Your task to perform on an android device: Open Youtube and go to "Your channel" Image 0: 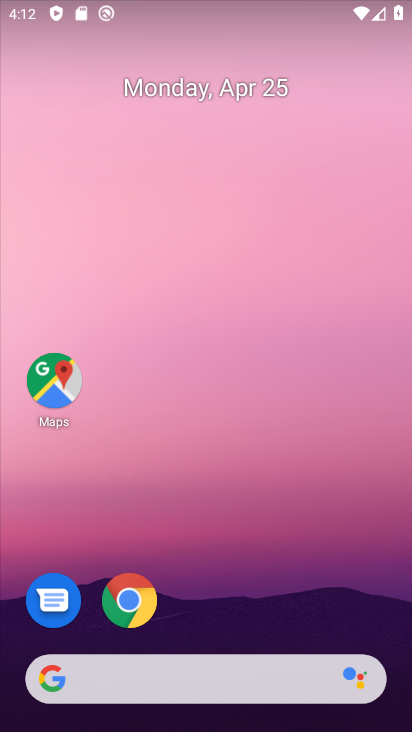
Step 0: drag from (193, 607) to (273, 126)
Your task to perform on an android device: Open Youtube and go to "Your channel" Image 1: 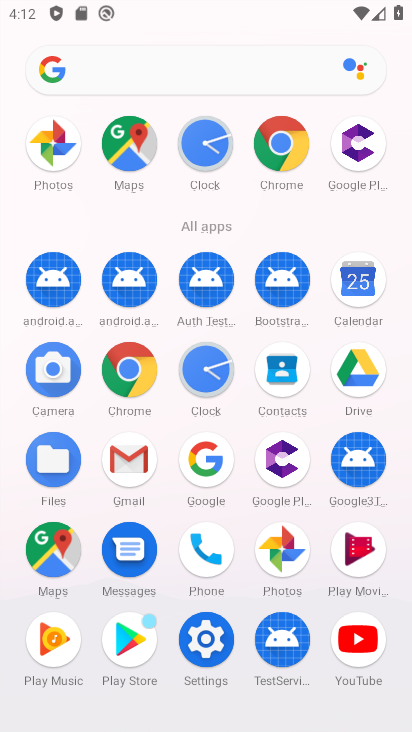
Step 1: click (365, 648)
Your task to perform on an android device: Open Youtube and go to "Your channel" Image 2: 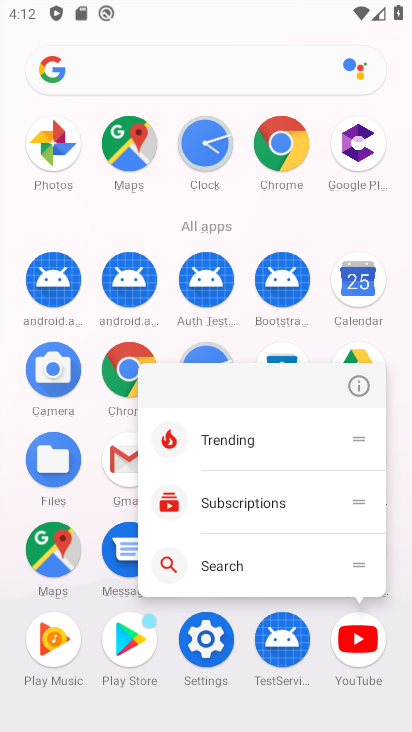
Step 2: click (364, 646)
Your task to perform on an android device: Open Youtube and go to "Your channel" Image 3: 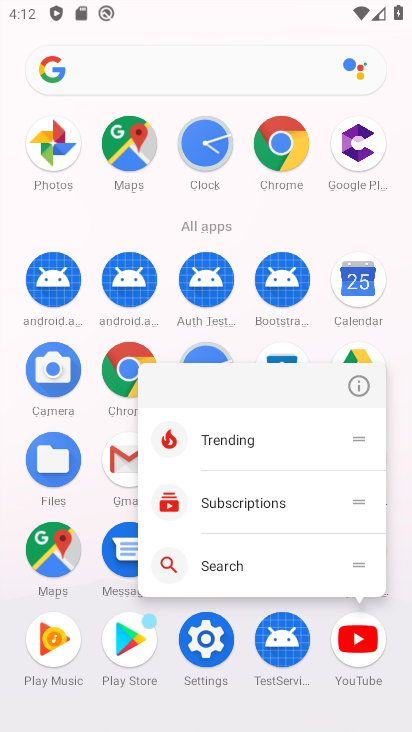
Step 3: click (359, 642)
Your task to perform on an android device: Open Youtube and go to "Your channel" Image 4: 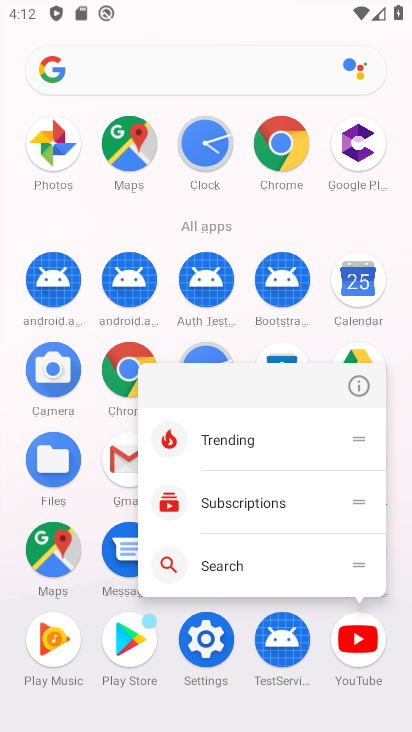
Step 4: click (359, 642)
Your task to perform on an android device: Open Youtube and go to "Your channel" Image 5: 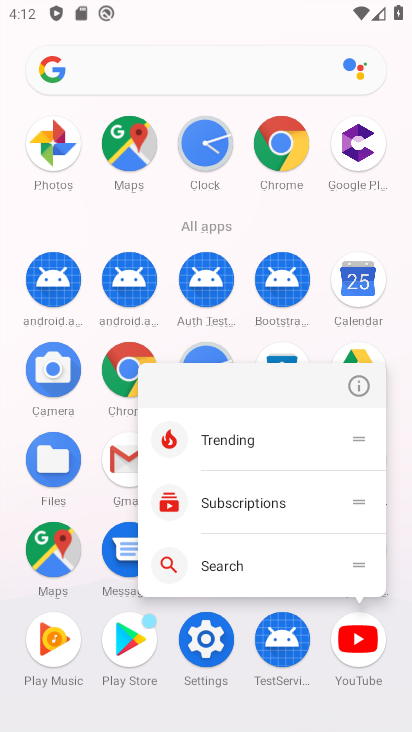
Step 5: click (363, 630)
Your task to perform on an android device: Open Youtube and go to "Your channel" Image 6: 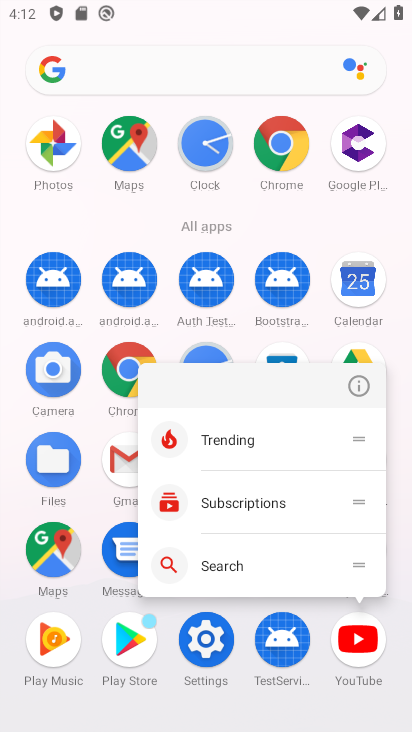
Step 6: click (360, 649)
Your task to perform on an android device: Open Youtube and go to "Your channel" Image 7: 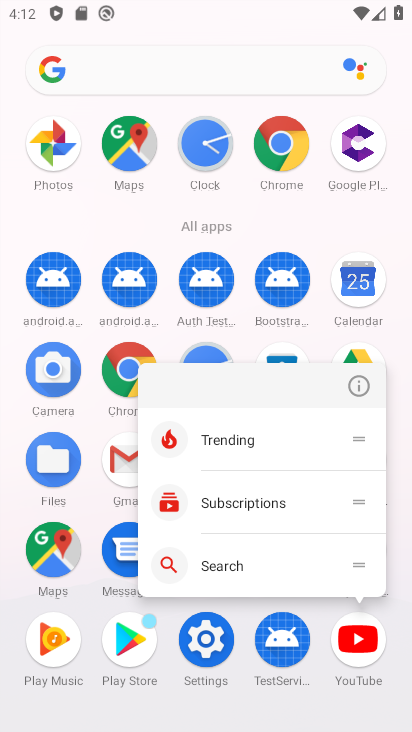
Step 7: click (360, 642)
Your task to perform on an android device: Open Youtube and go to "Your channel" Image 8: 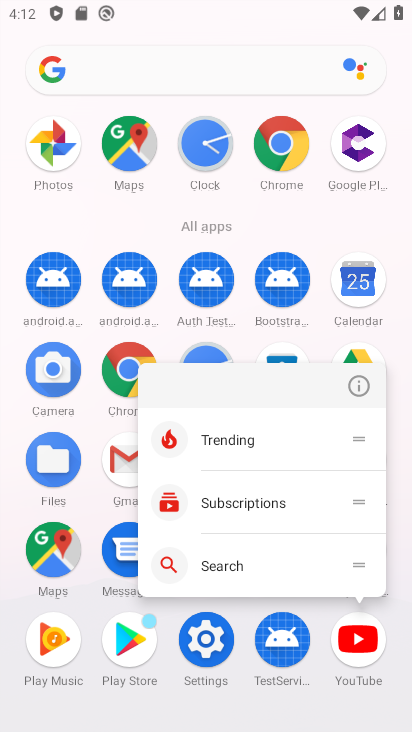
Step 8: click (361, 635)
Your task to perform on an android device: Open Youtube and go to "Your channel" Image 9: 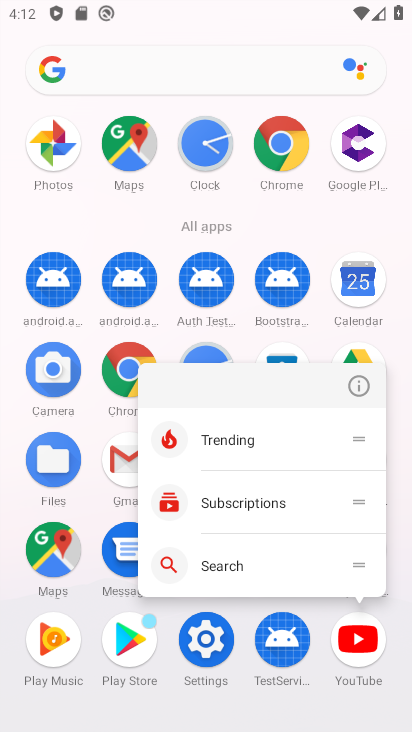
Step 9: click (365, 644)
Your task to perform on an android device: Open Youtube and go to "Your channel" Image 10: 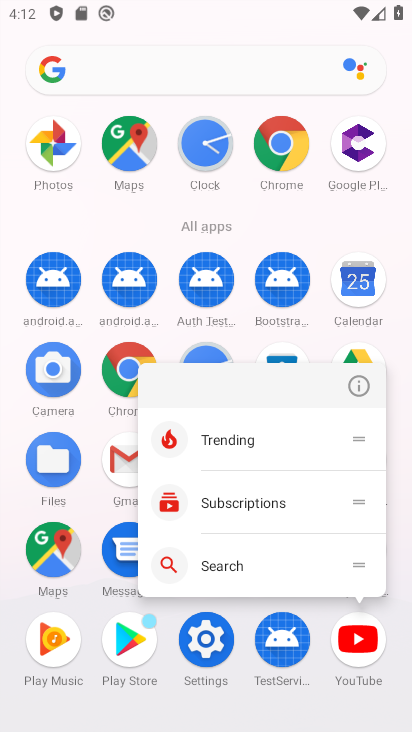
Step 10: click (365, 640)
Your task to perform on an android device: Open Youtube and go to "Your channel" Image 11: 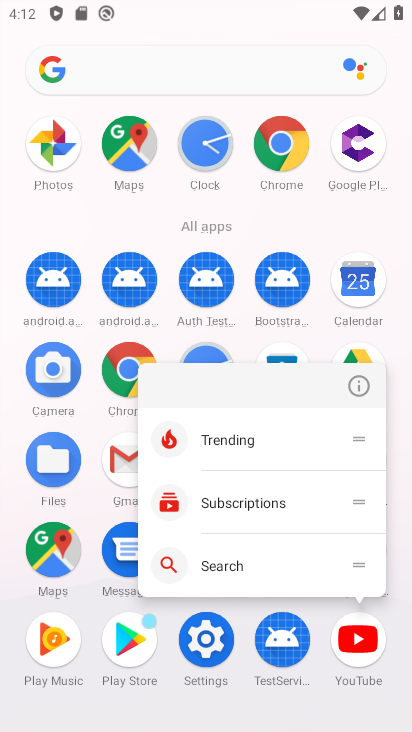
Step 11: click (365, 640)
Your task to perform on an android device: Open Youtube and go to "Your channel" Image 12: 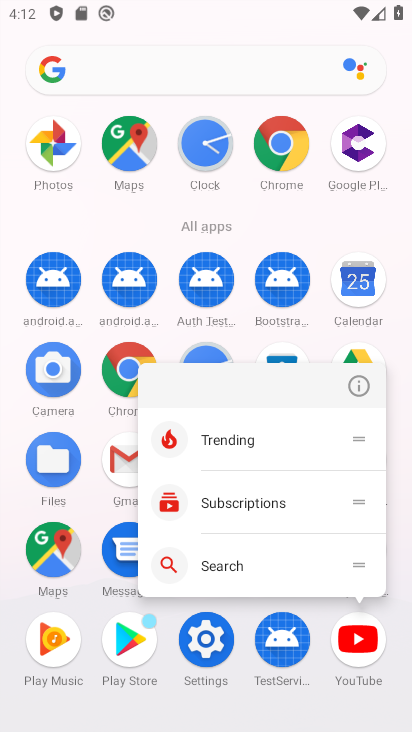
Step 12: click (365, 641)
Your task to perform on an android device: Open Youtube and go to "Your channel" Image 13: 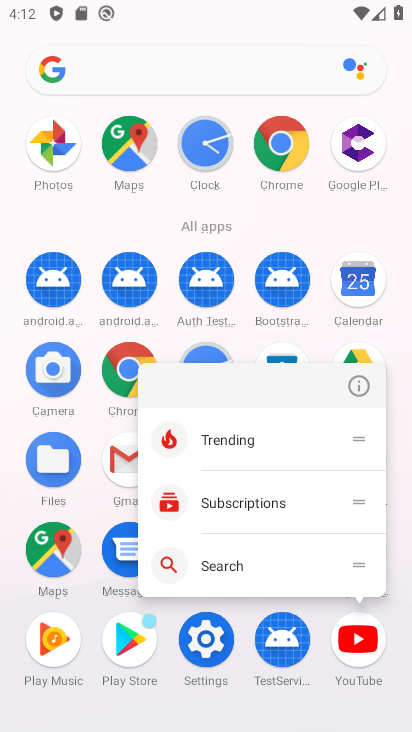
Step 13: click (364, 646)
Your task to perform on an android device: Open Youtube and go to "Your channel" Image 14: 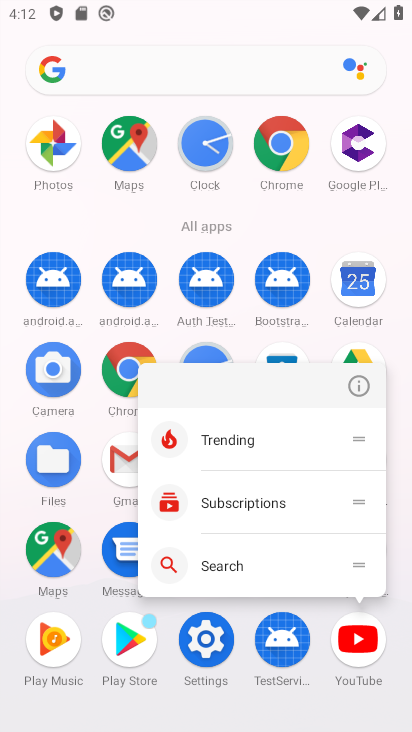
Step 14: click (356, 643)
Your task to perform on an android device: Open Youtube and go to "Your channel" Image 15: 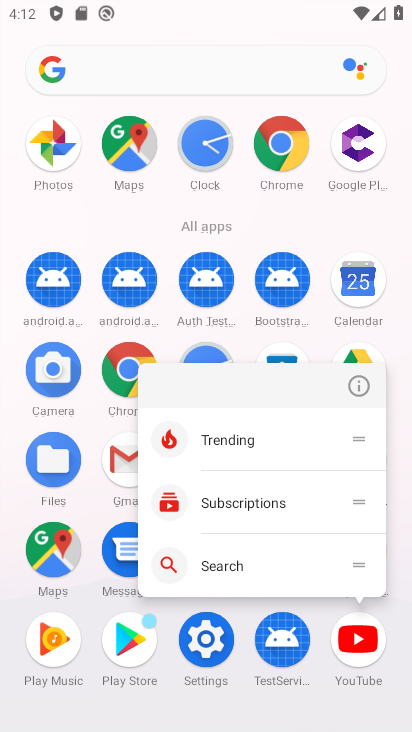
Step 15: click (355, 641)
Your task to perform on an android device: Open Youtube and go to "Your channel" Image 16: 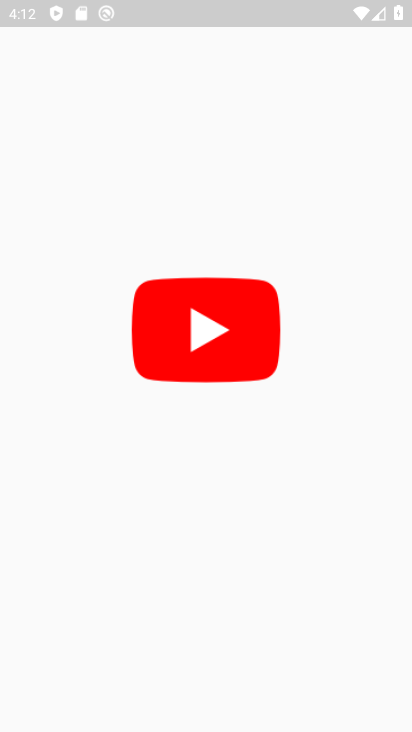
Step 16: click (355, 641)
Your task to perform on an android device: Open Youtube and go to "Your channel" Image 17: 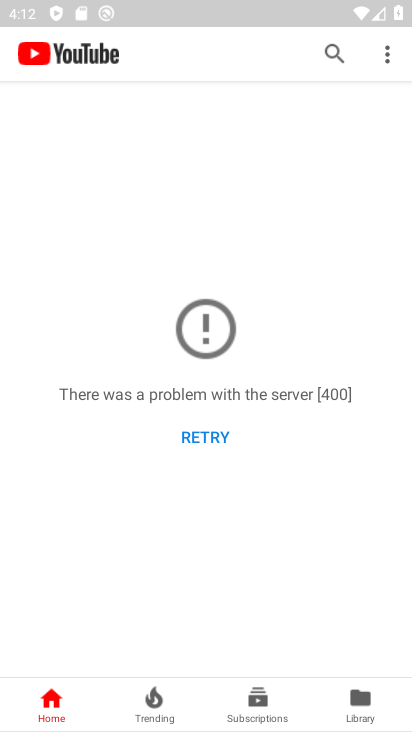
Step 17: click (357, 706)
Your task to perform on an android device: Open Youtube and go to "Your channel" Image 18: 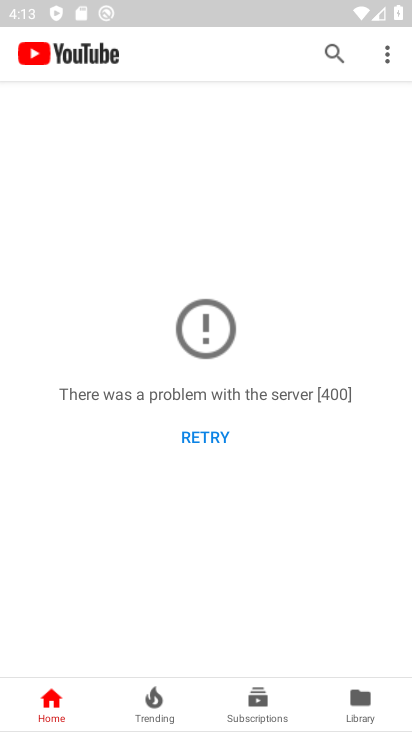
Step 18: task complete